Your task to perform on an android device: View the shopping cart on costco. Add razer blackwidow to the cart on costco, then select checkout. Image 0: 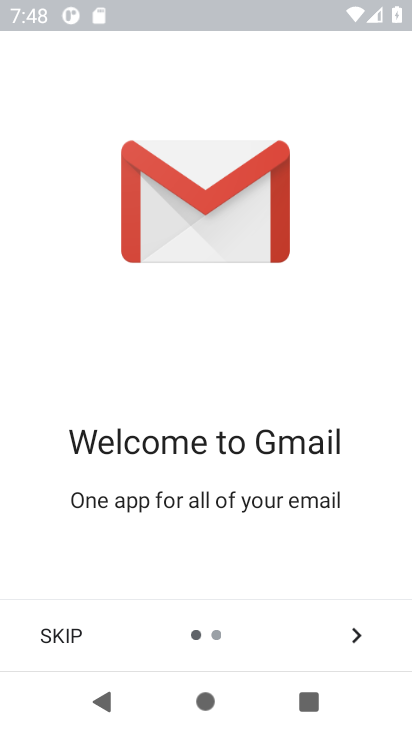
Step 0: press home button
Your task to perform on an android device: View the shopping cart on costco. Add razer blackwidow to the cart on costco, then select checkout. Image 1: 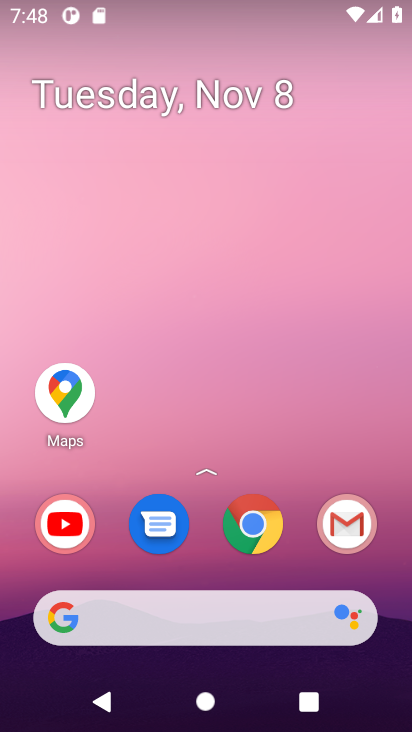
Step 1: click (256, 534)
Your task to perform on an android device: View the shopping cart on costco. Add razer blackwidow to the cart on costco, then select checkout. Image 2: 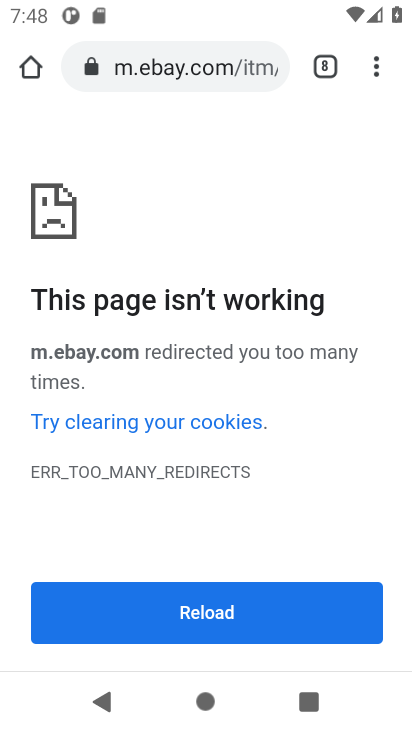
Step 2: click (200, 76)
Your task to perform on an android device: View the shopping cart on costco. Add razer blackwidow to the cart on costco, then select checkout. Image 3: 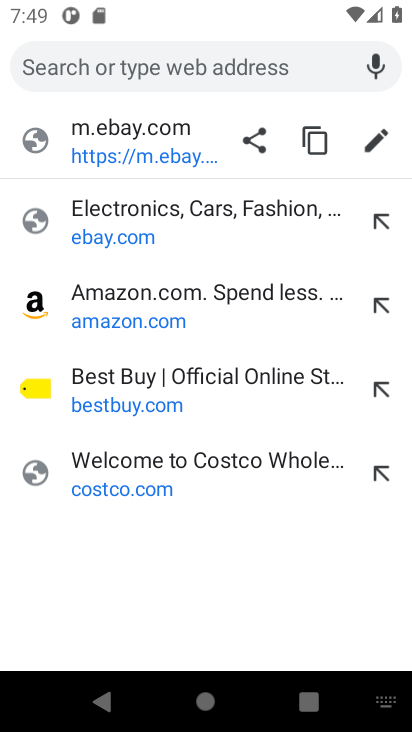
Step 3: click (88, 476)
Your task to perform on an android device: View the shopping cart on costco. Add razer blackwidow to the cart on costco, then select checkout. Image 4: 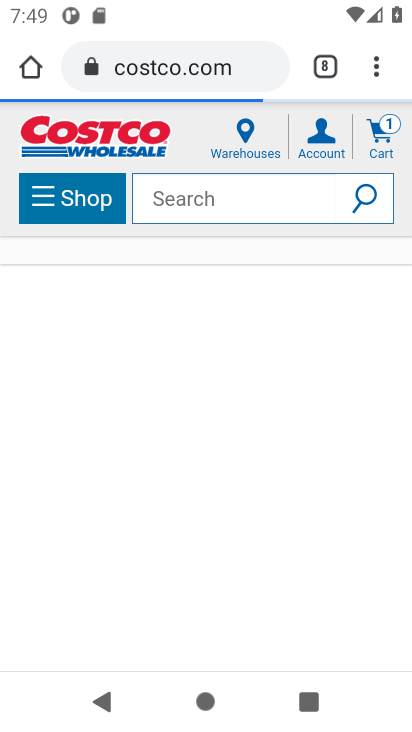
Step 4: click (366, 139)
Your task to perform on an android device: View the shopping cart on costco. Add razer blackwidow to the cart on costco, then select checkout. Image 5: 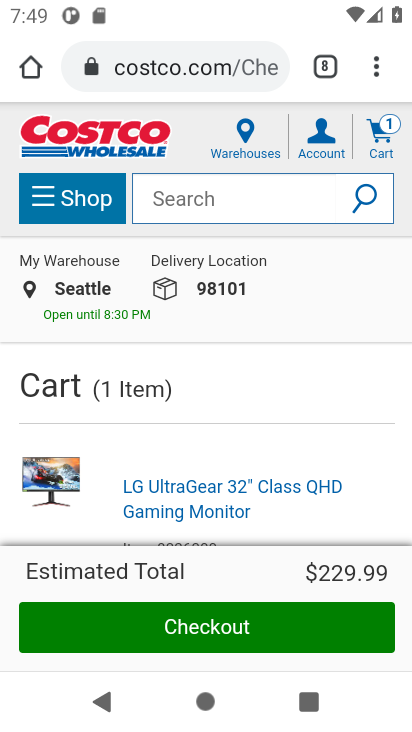
Step 5: click (241, 188)
Your task to perform on an android device: View the shopping cart on costco. Add razer blackwidow to the cart on costco, then select checkout. Image 6: 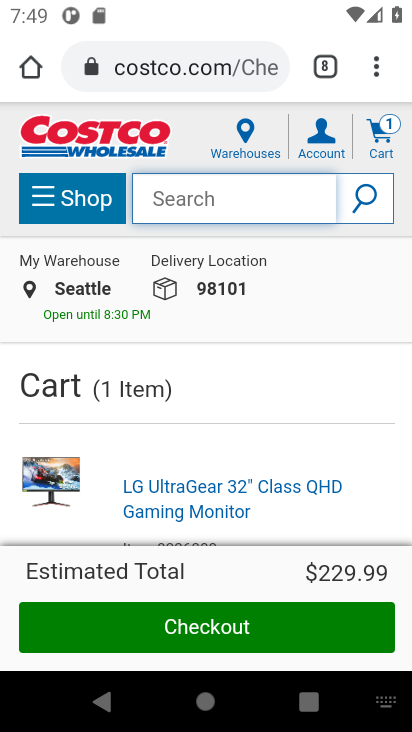
Step 6: type "razer blackwidow"
Your task to perform on an android device: View the shopping cart on costco. Add razer blackwidow to the cart on costco, then select checkout. Image 7: 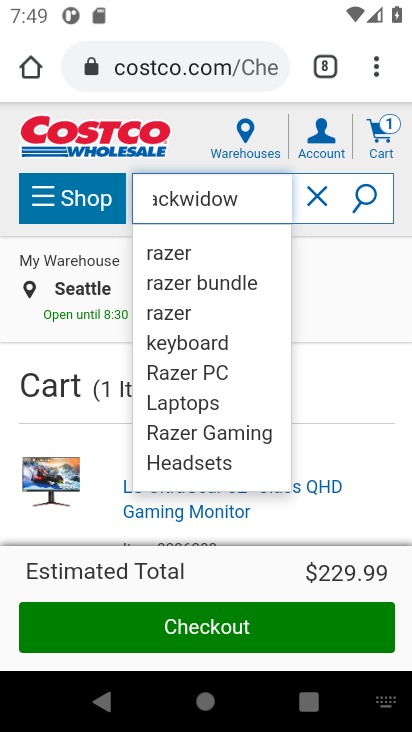
Step 7: click (356, 211)
Your task to perform on an android device: View the shopping cart on costco. Add razer blackwidow to the cart on costco, then select checkout. Image 8: 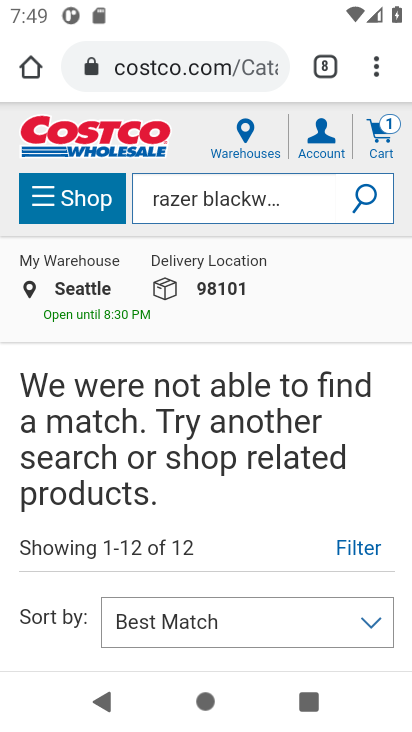
Step 8: task complete